Your task to perform on an android device: change notification settings in the gmail app Image 0: 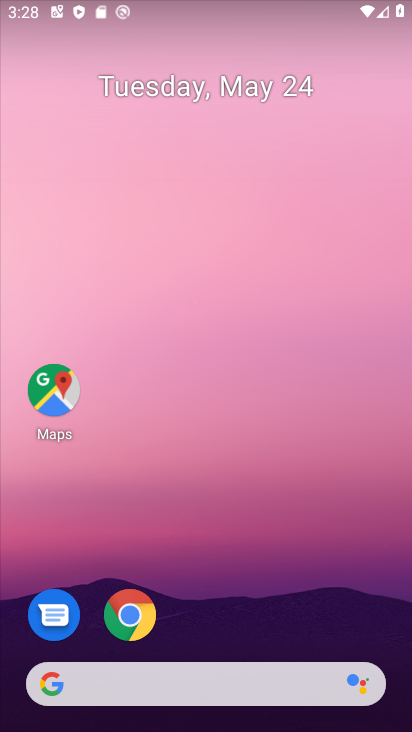
Step 0: drag from (238, 727) to (228, 65)
Your task to perform on an android device: change notification settings in the gmail app Image 1: 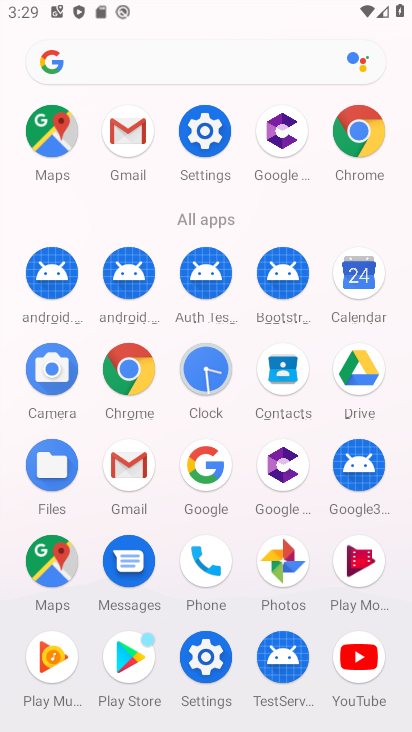
Step 1: click (126, 466)
Your task to perform on an android device: change notification settings in the gmail app Image 2: 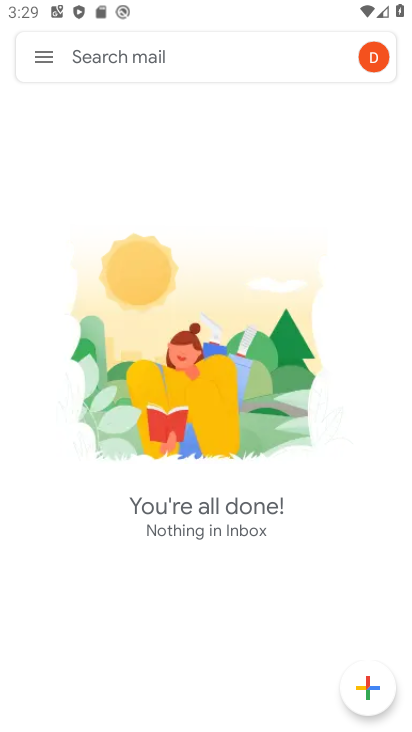
Step 2: click (41, 52)
Your task to perform on an android device: change notification settings in the gmail app Image 3: 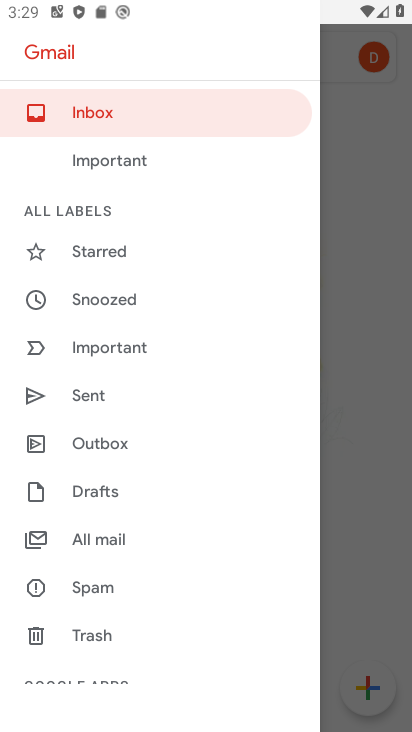
Step 3: drag from (120, 639) to (123, 224)
Your task to perform on an android device: change notification settings in the gmail app Image 4: 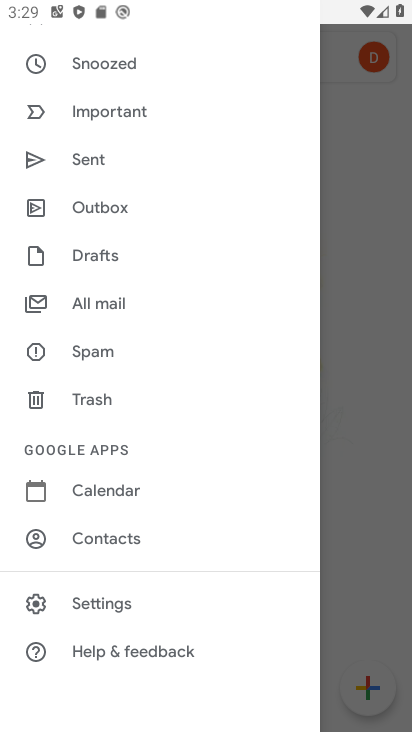
Step 4: click (106, 606)
Your task to perform on an android device: change notification settings in the gmail app Image 5: 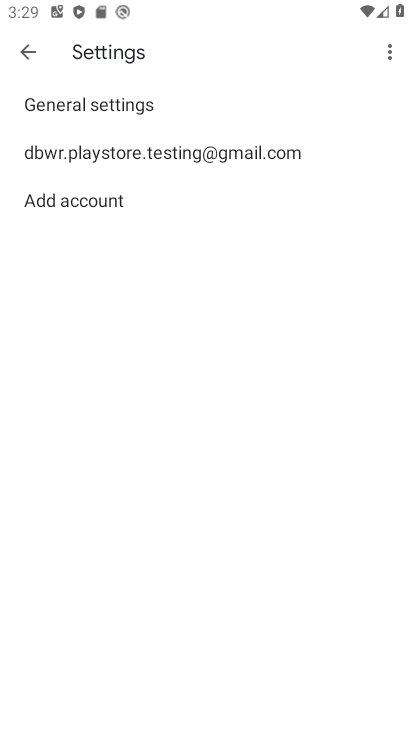
Step 5: click (192, 153)
Your task to perform on an android device: change notification settings in the gmail app Image 6: 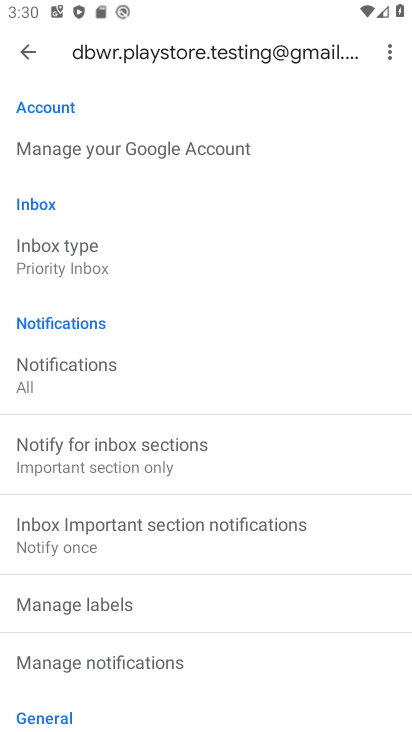
Step 6: click (54, 376)
Your task to perform on an android device: change notification settings in the gmail app Image 7: 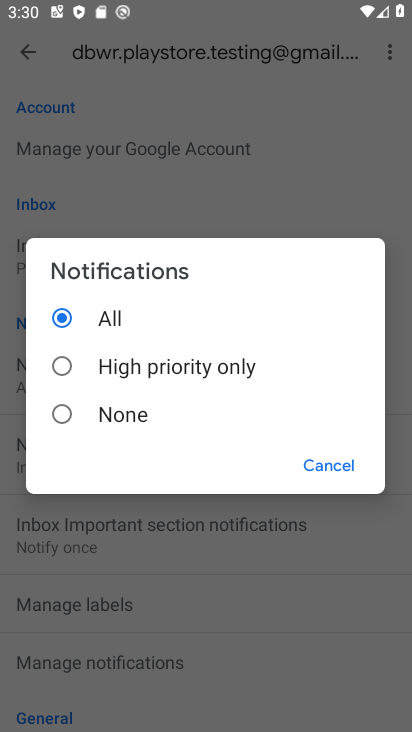
Step 7: click (61, 367)
Your task to perform on an android device: change notification settings in the gmail app Image 8: 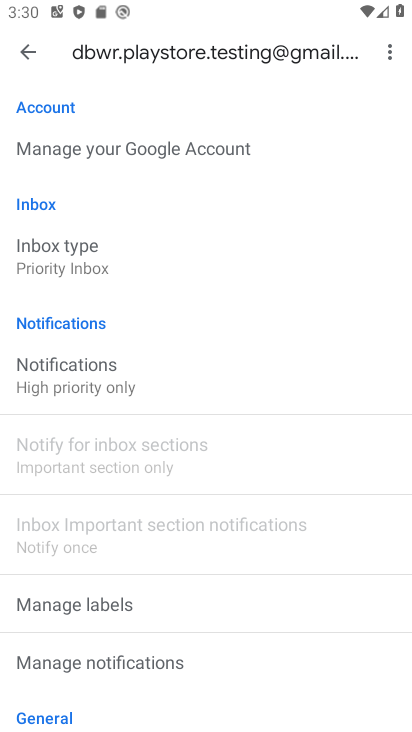
Step 8: task complete